Your task to perform on an android device: empty trash in the gmail app Image 0: 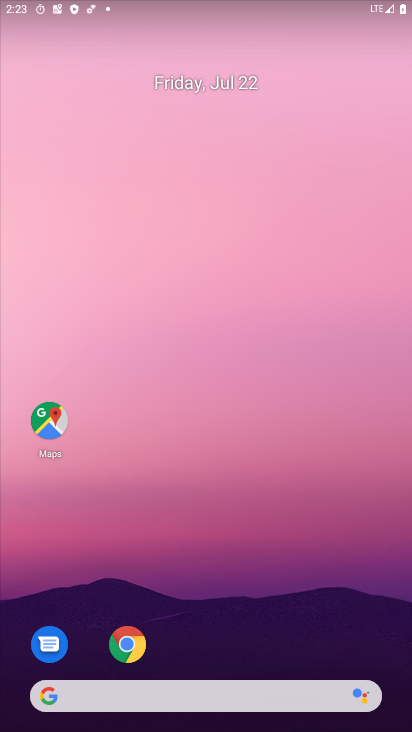
Step 0: drag from (249, 664) to (285, 191)
Your task to perform on an android device: empty trash in the gmail app Image 1: 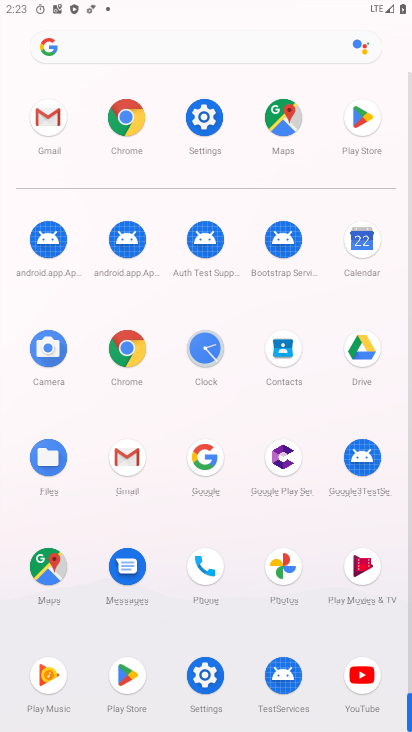
Step 1: click (138, 460)
Your task to perform on an android device: empty trash in the gmail app Image 2: 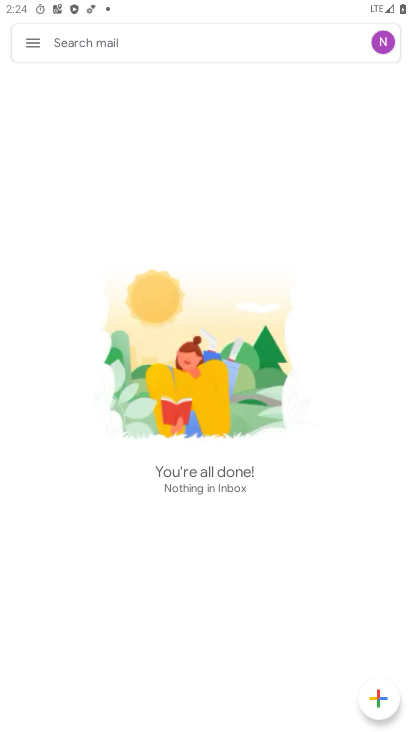
Step 2: click (32, 45)
Your task to perform on an android device: empty trash in the gmail app Image 3: 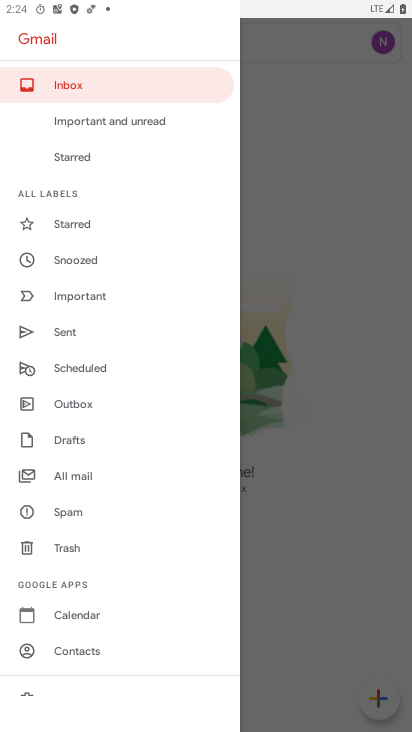
Step 3: click (74, 548)
Your task to perform on an android device: empty trash in the gmail app Image 4: 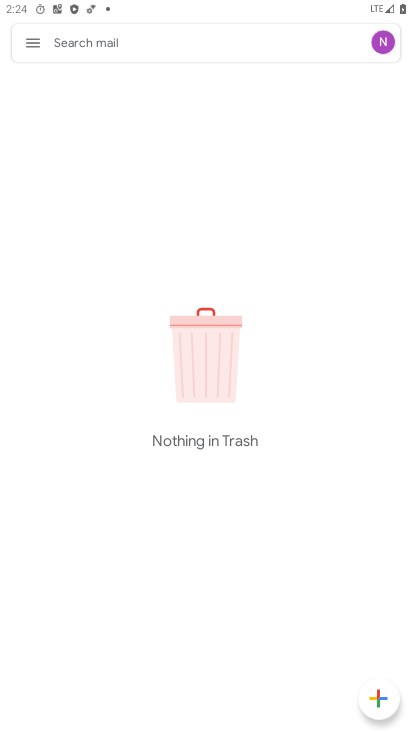
Step 4: task complete